Your task to perform on an android device: Go to Android settings Image 0: 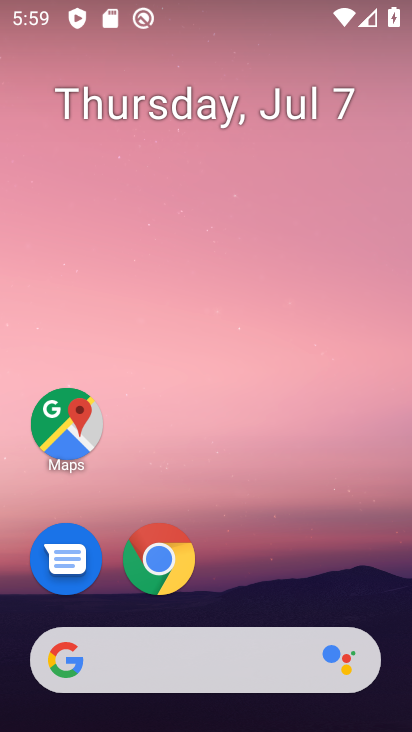
Step 0: drag from (335, 575) to (301, 170)
Your task to perform on an android device: Go to Android settings Image 1: 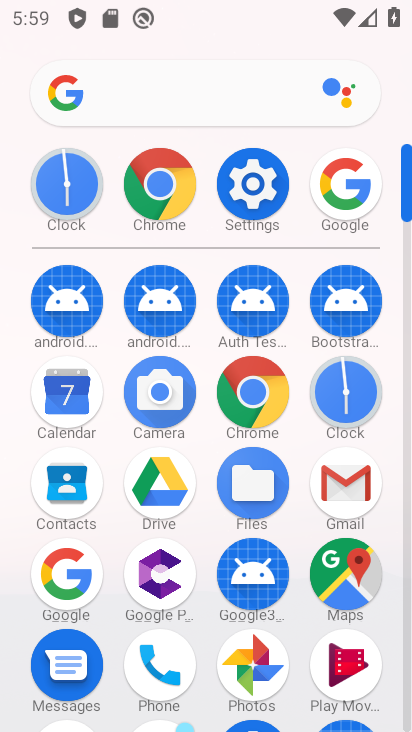
Step 1: click (264, 199)
Your task to perform on an android device: Go to Android settings Image 2: 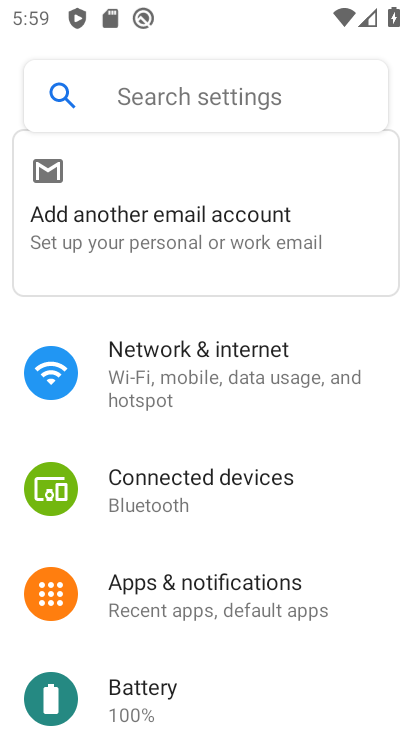
Step 2: drag from (268, 539) to (255, 105)
Your task to perform on an android device: Go to Android settings Image 3: 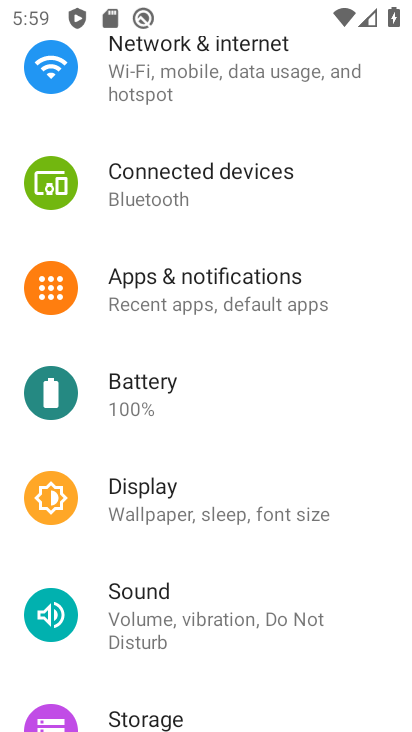
Step 3: drag from (187, 649) to (223, 104)
Your task to perform on an android device: Go to Android settings Image 4: 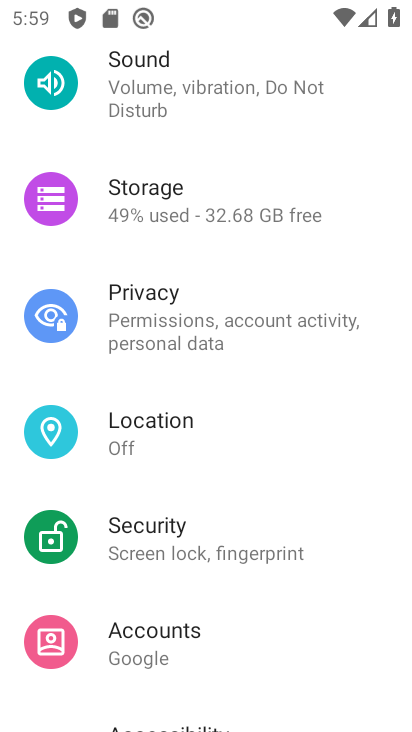
Step 4: drag from (207, 547) to (254, 83)
Your task to perform on an android device: Go to Android settings Image 5: 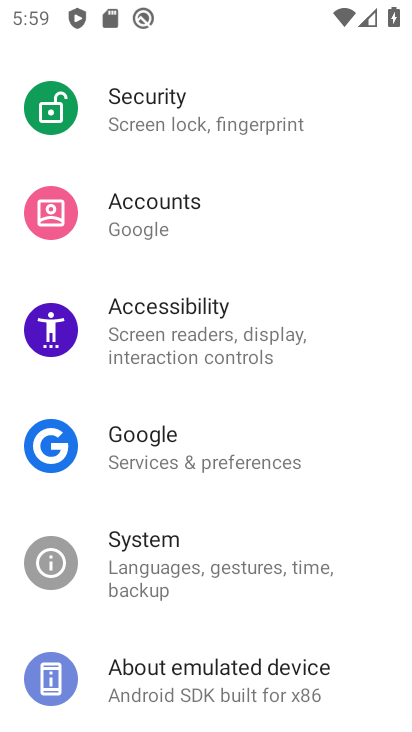
Step 5: click (246, 637)
Your task to perform on an android device: Go to Android settings Image 6: 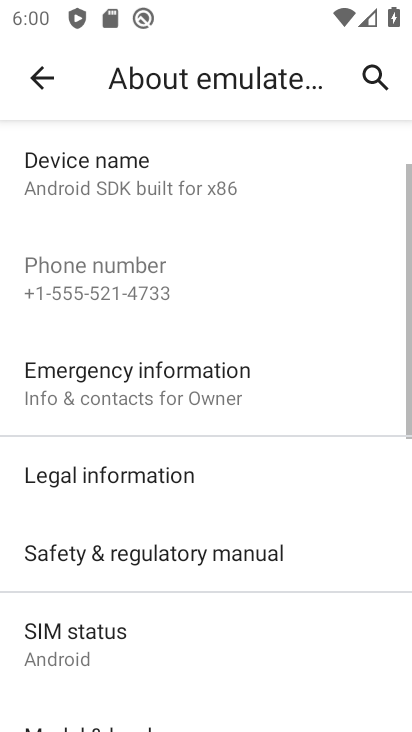
Step 6: drag from (189, 469) to (217, 181)
Your task to perform on an android device: Go to Android settings Image 7: 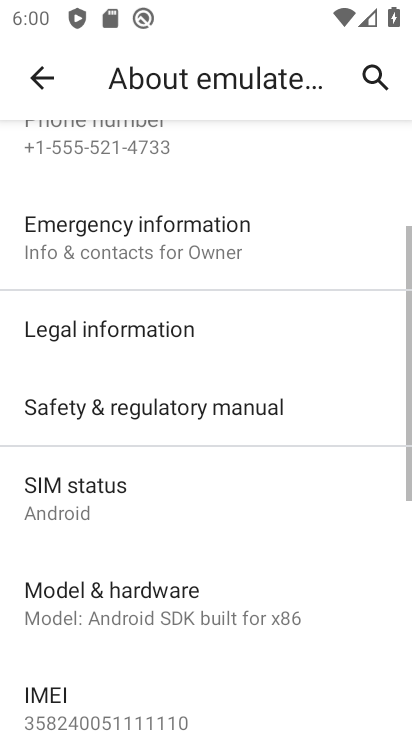
Step 7: drag from (148, 522) to (212, 185)
Your task to perform on an android device: Go to Android settings Image 8: 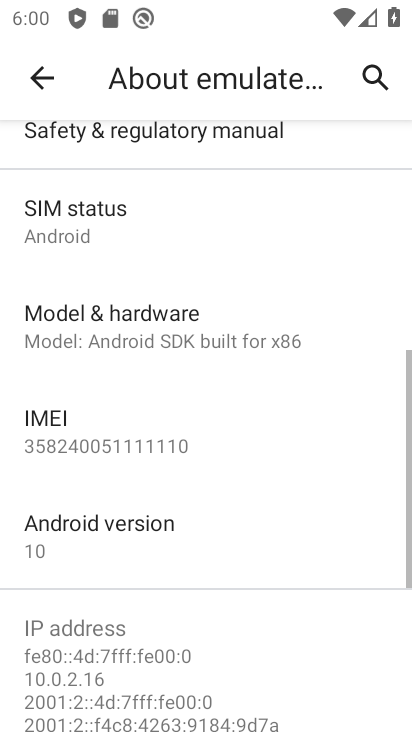
Step 8: click (156, 526)
Your task to perform on an android device: Go to Android settings Image 9: 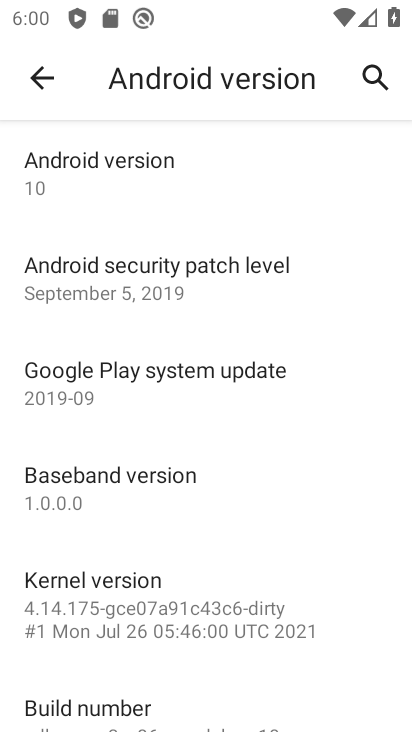
Step 9: task complete